Your task to perform on an android device: Open Youtube and go to the subscriptions tab Image 0: 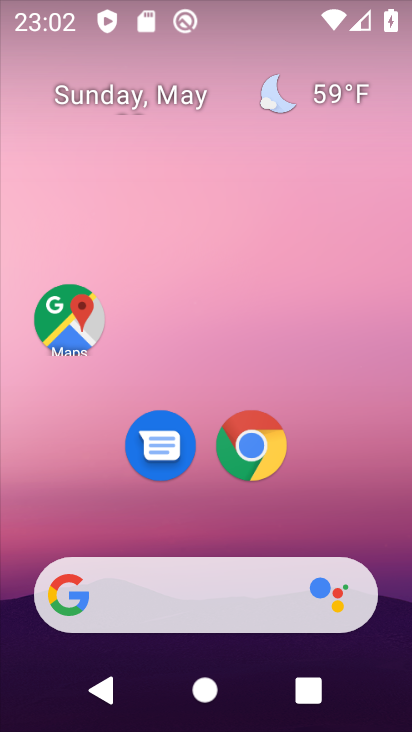
Step 0: drag from (278, 478) to (241, 48)
Your task to perform on an android device: Open Youtube and go to the subscriptions tab Image 1: 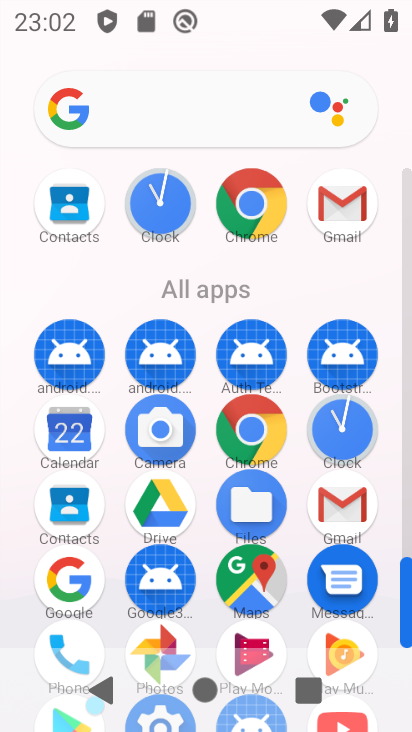
Step 1: drag from (291, 295) to (301, 48)
Your task to perform on an android device: Open Youtube and go to the subscriptions tab Image 2: 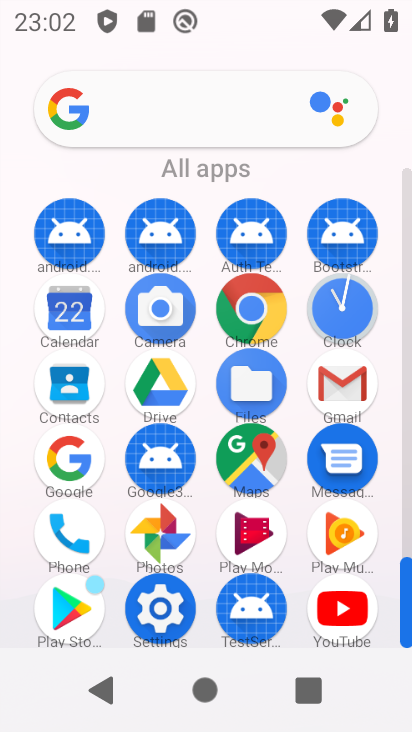
Step 2: click (342, 605)
Your task to perform on an android device: Open Youtube and go to the subscriptions tab Image 3: 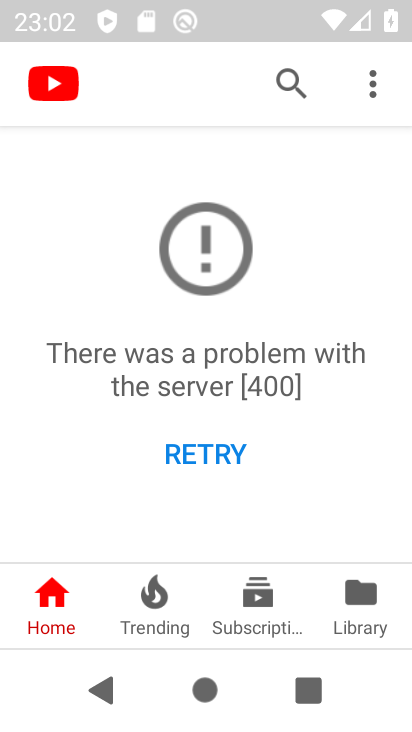
Step 3: click (249, 599)
Your task to perform on an android device: Open Youtube and go to the subscriptions tab Image 4: 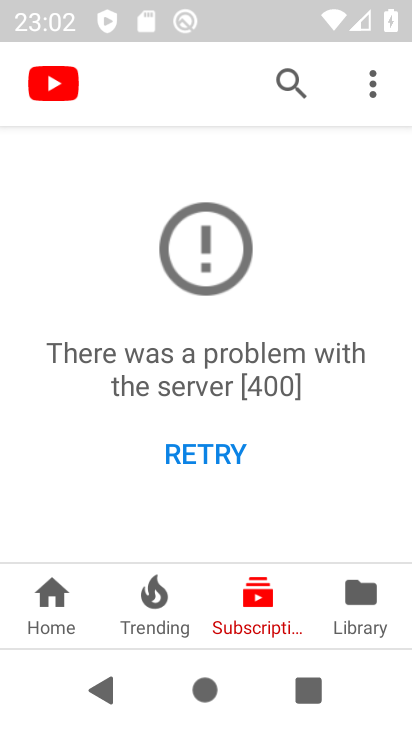
Step 4: task complete